Your task to perform on an android device: open app "Gmail" (install if not already installed) Image 0: 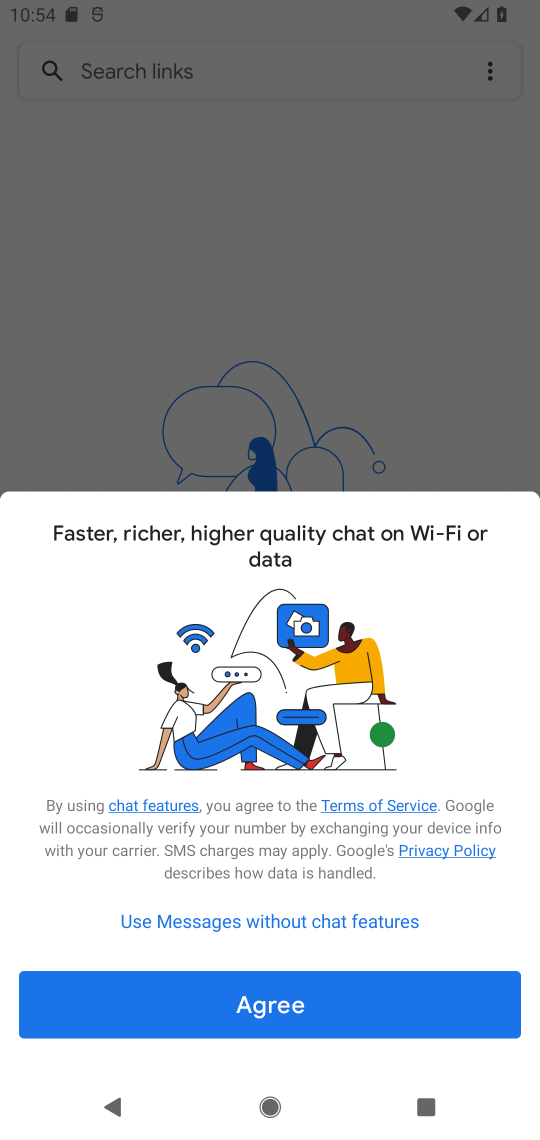
Step 0: press home button
Your task to perform on an android device: open app "Gmail" (install if not already installed) Image 1: 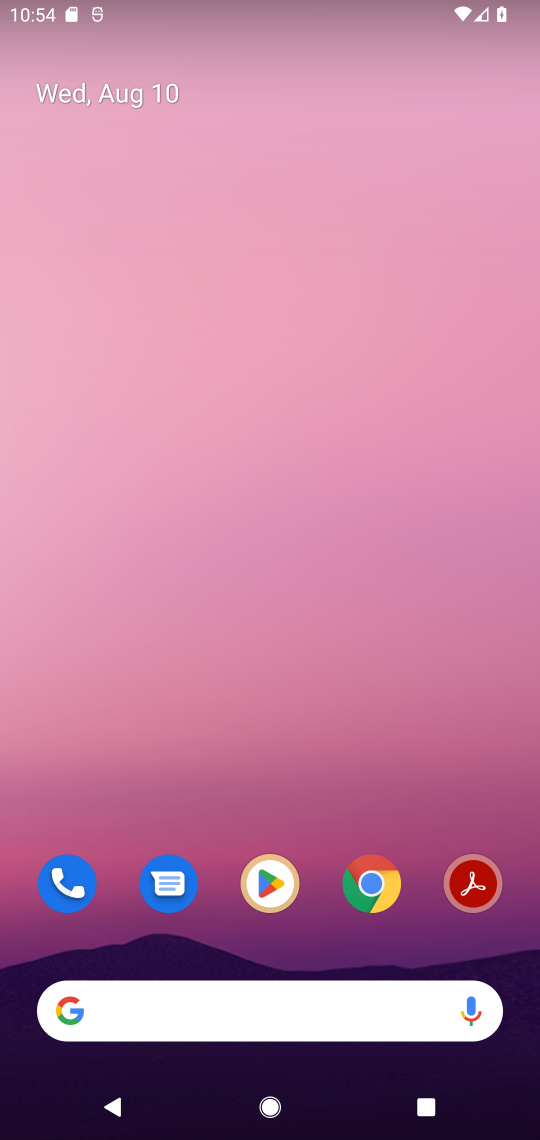
Step 1: click (270, 886)
Your task to perform on an android device: open app "Gmail" (install if not already installed) Image 2: 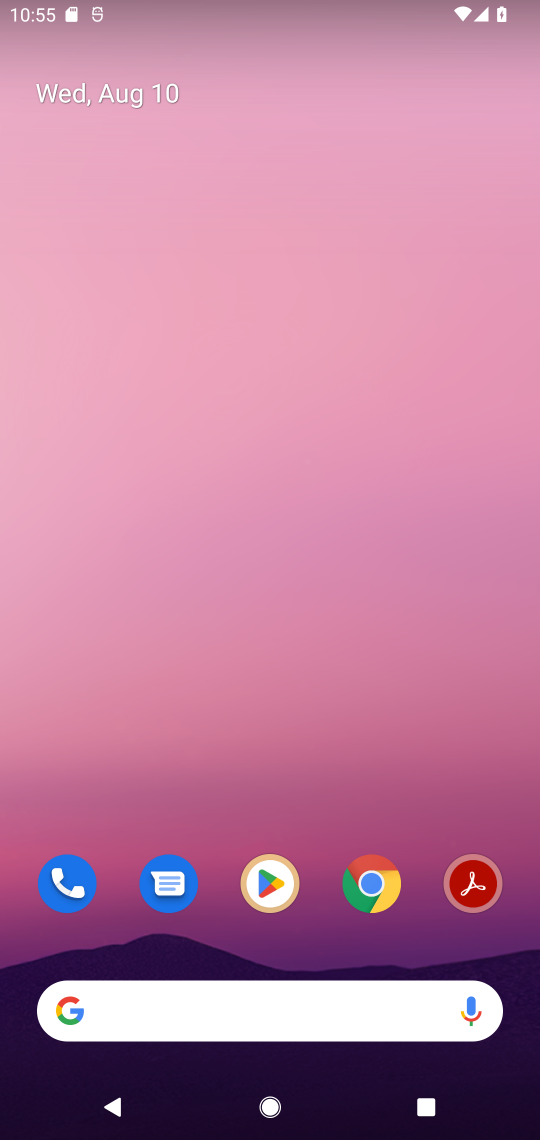
Step 2: drag from (313, 862) to (317, 95)
Your task to perform on an android device: open app "Gmail" (install if not already installed) Image 3: 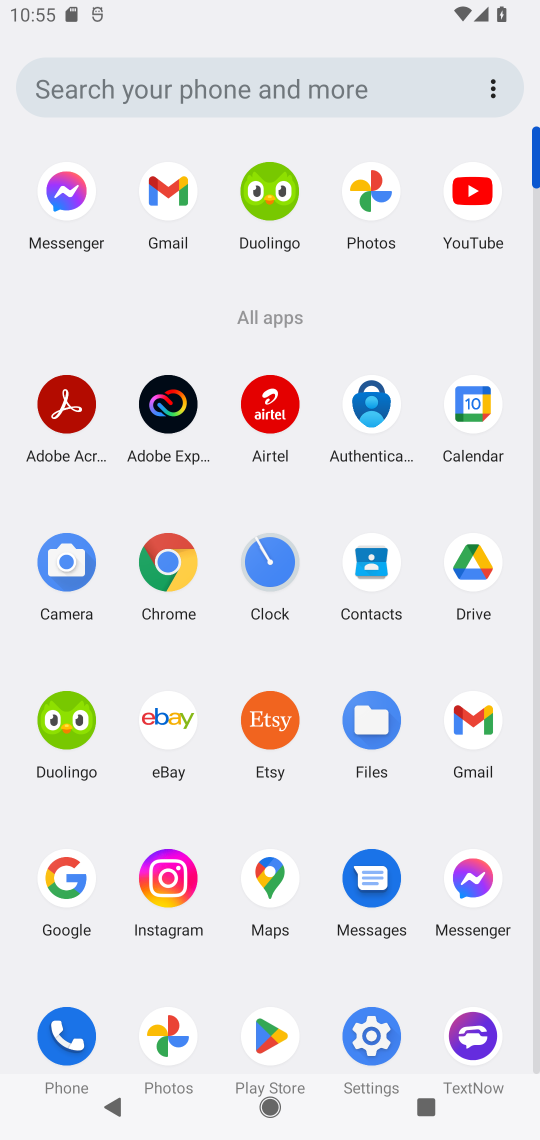
Step 3: click (470, 719)
Your task to perform on an android device: open app "Gmail" (install if not already installed) Image 4: 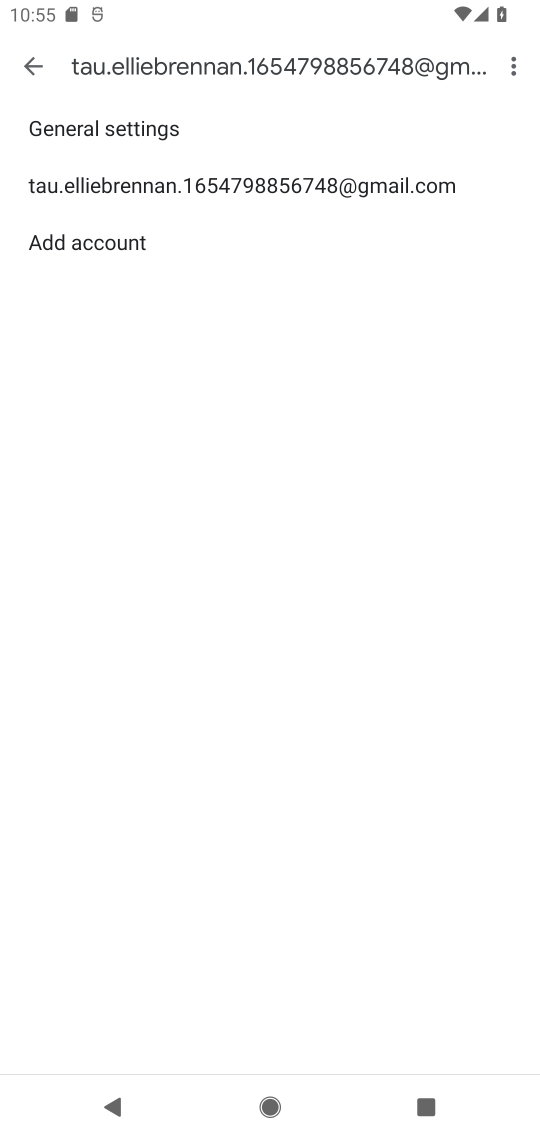
Step 4: task complete